Your task to perform on an android device: open device folders in google photos Image 0: 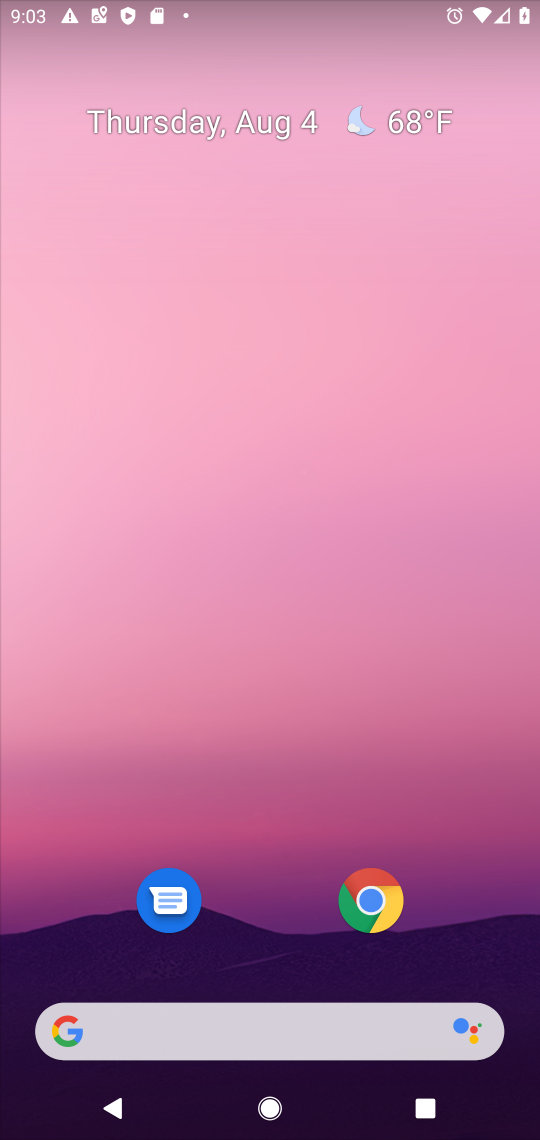
Step 0: drag from (249, 1029) to (412, 135)
Your task to perform on an android device: open device folders in google photos Image 1: 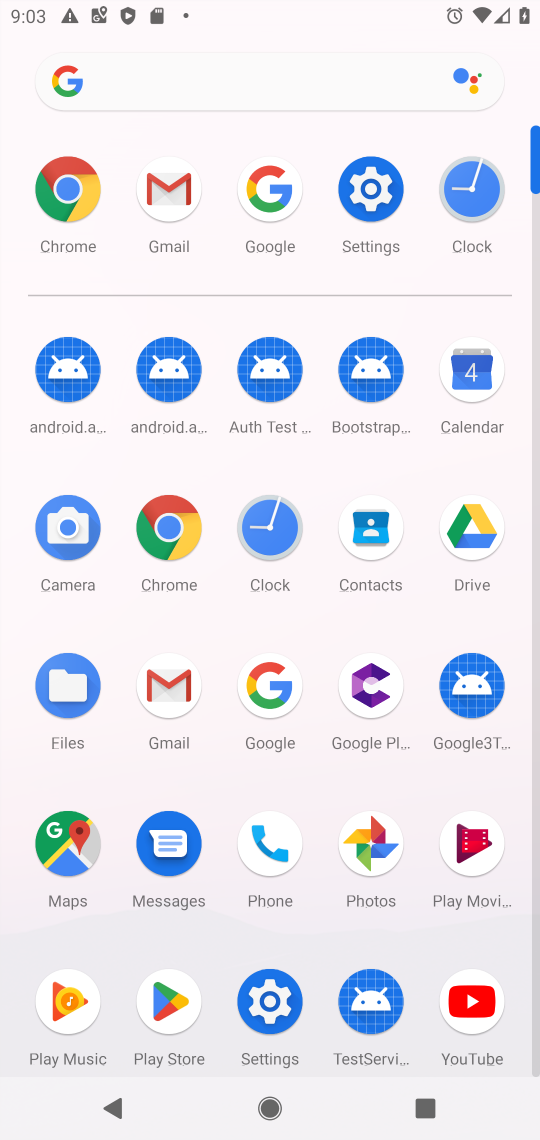
Step 1: click (371, 841)
Your task to perform on an android device: open device folders in google photos Image 2: 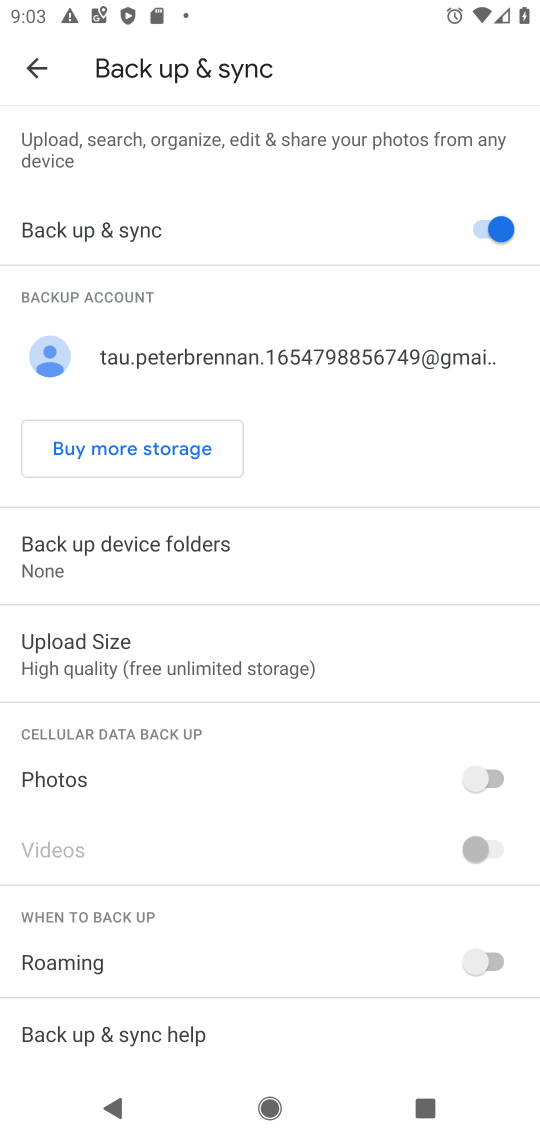
Step 2: press back button
Your task to perform on an android device: open device folders in google photos Image 3: 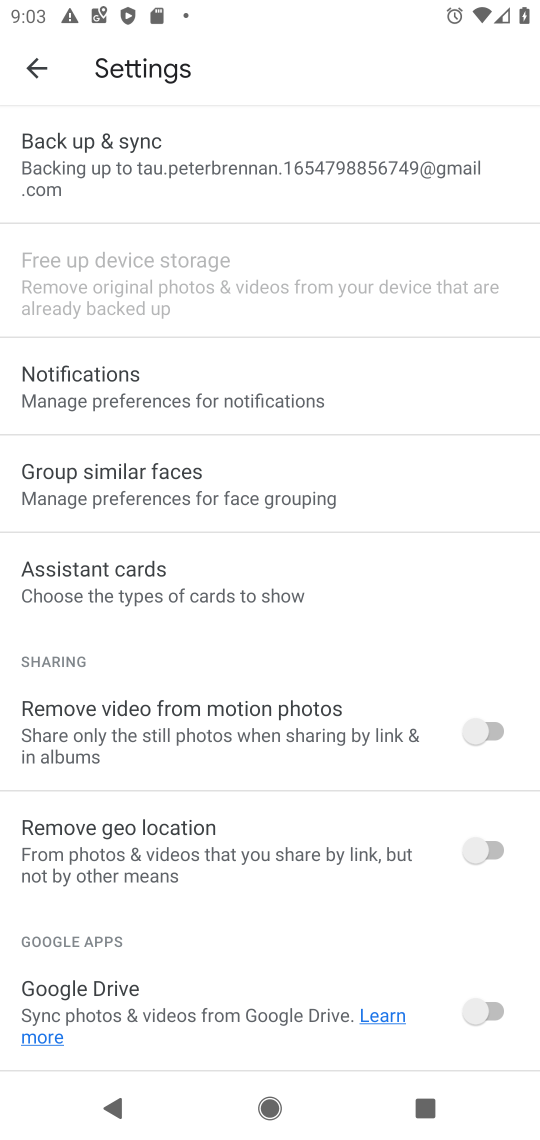
Step 3: press back button
Your task to perform on an android device: open device folders in google photos Image 4: 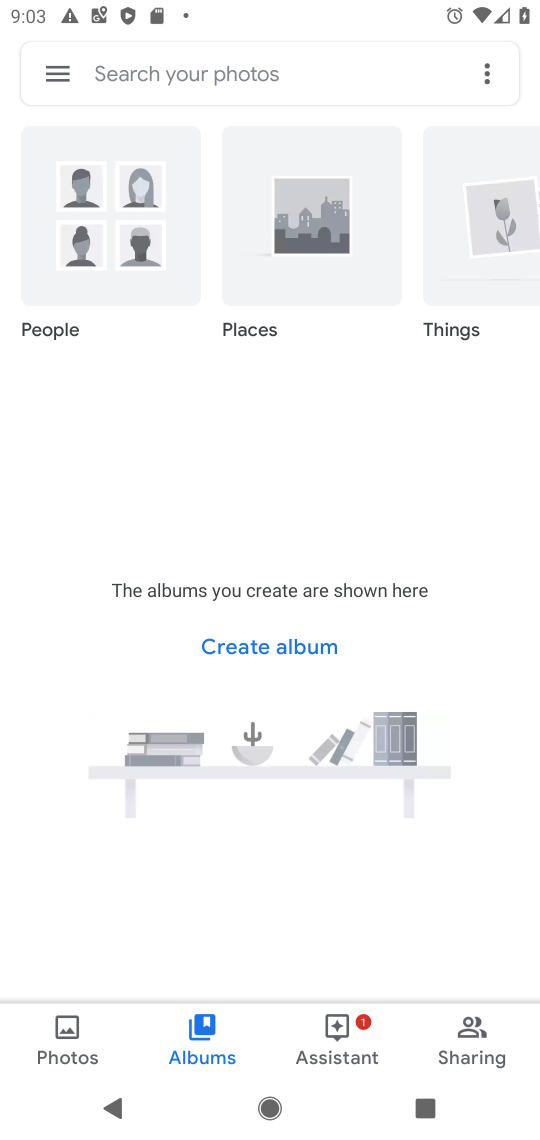
Step 4: click (58, 74)
Your task to perform on an android device: open device folders in google photos Image 5: 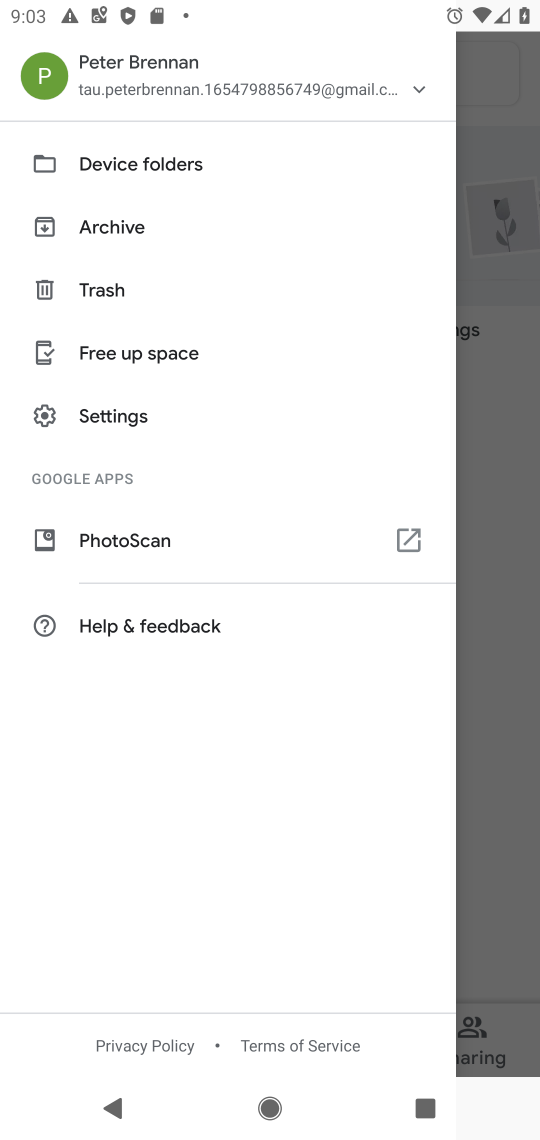
Step 5: click (128, 174)
Your task to perform on an android device: open device folders in google photos Image 6: 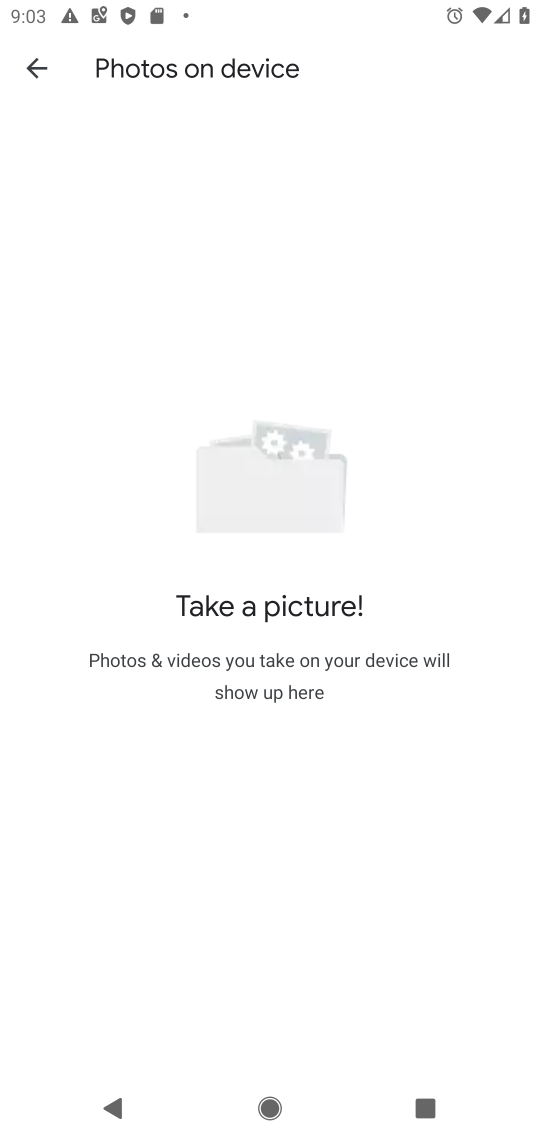
Step 6: task complete